Your task to perform on an android device: Open Android settings Image 0: 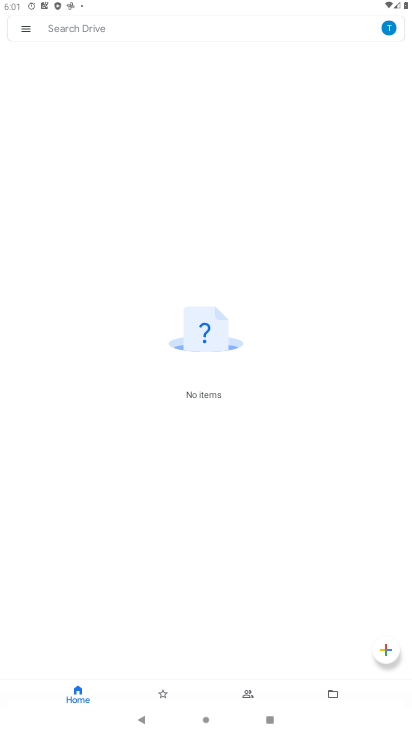
Step 0: press home button
Your task to perform on an android device: Open Android settings Image 1: 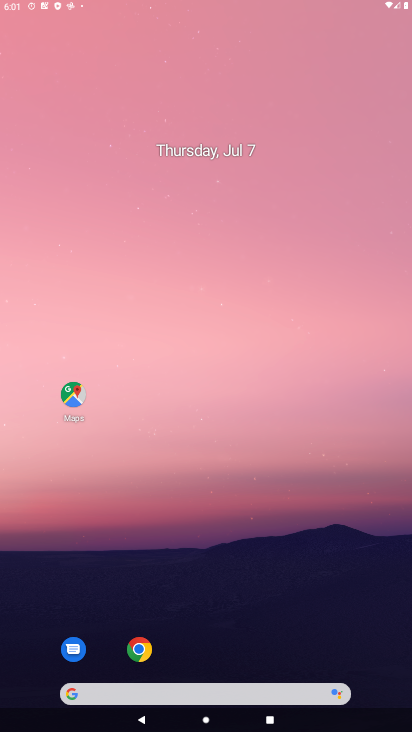
Step 1: drag from (362, 635) to (243, 1)
Your task to perform on an android device: Open Android settings Image 2: 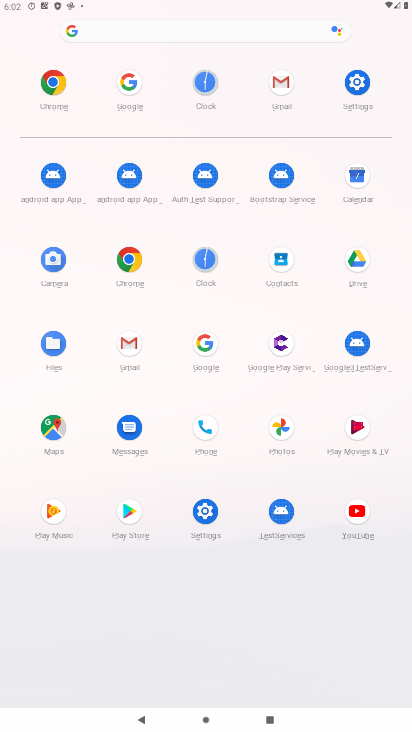
Step 2: click (214, 511)
Your task to perform on an android device: Open Android settings Image 3: 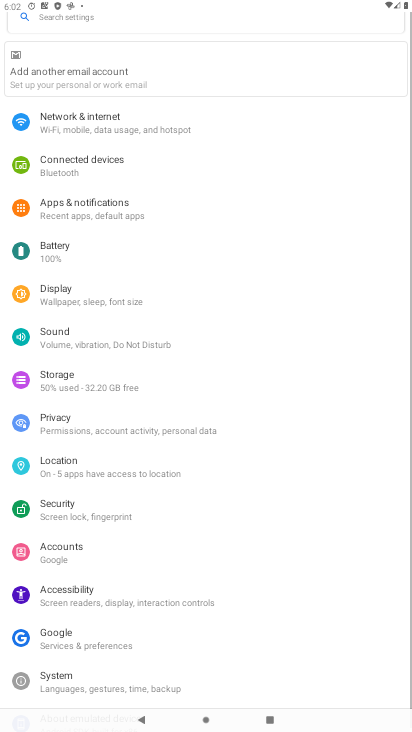
Step 3: drag from (96, 637) to (115, 76)
Your task to perform on an android device: Open Android settings Image 4: 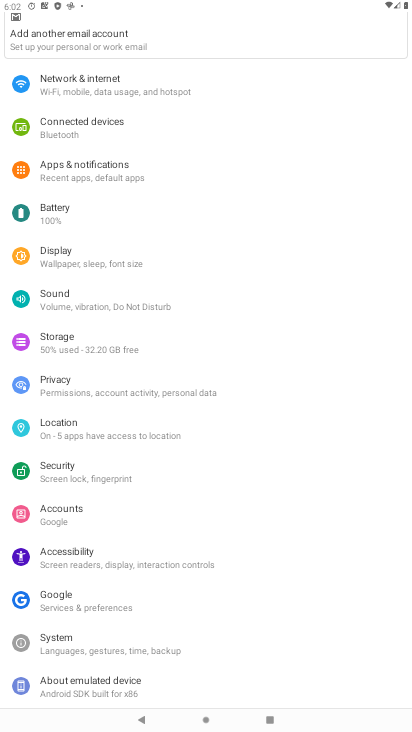
Step 4: click (127, 673)
Your task to perform on an android device: Open Android settings Image 5: 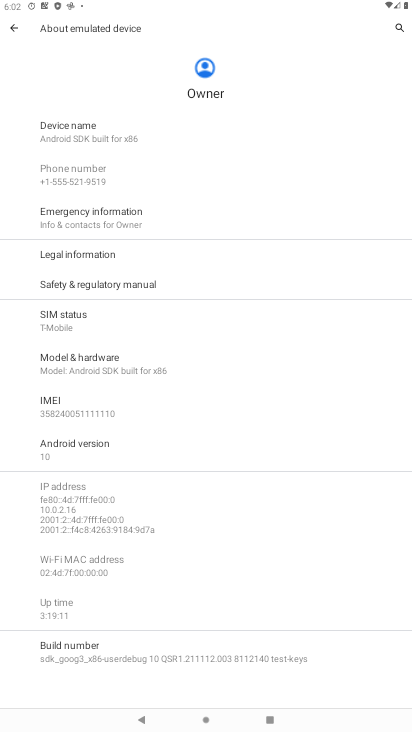
Step 5: click (92, 441)
Your task to perform on an android device: Open Android settings Image 6: 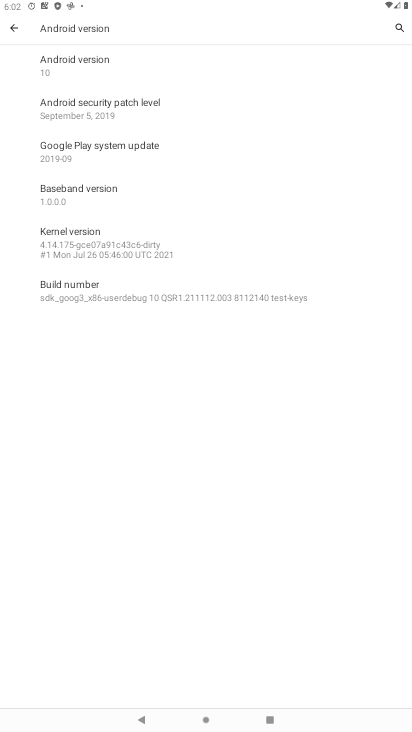
Step 6: task complete